Your task to perform on an android device: check android version Image 0: 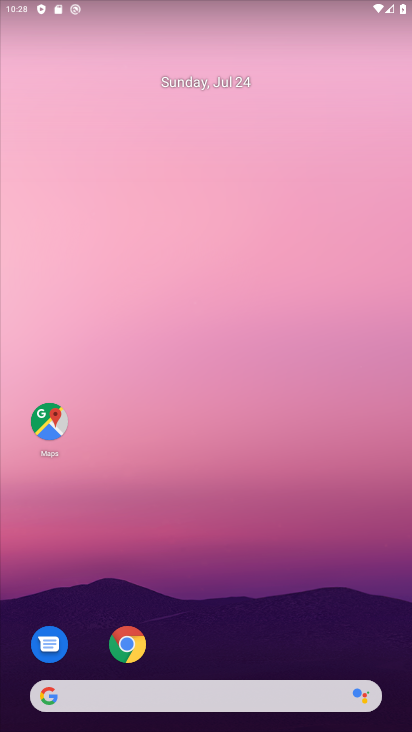
Step 0: drag from (232, 658) to (247, 15)
Your task to perform on an android device: check android version Image 1: 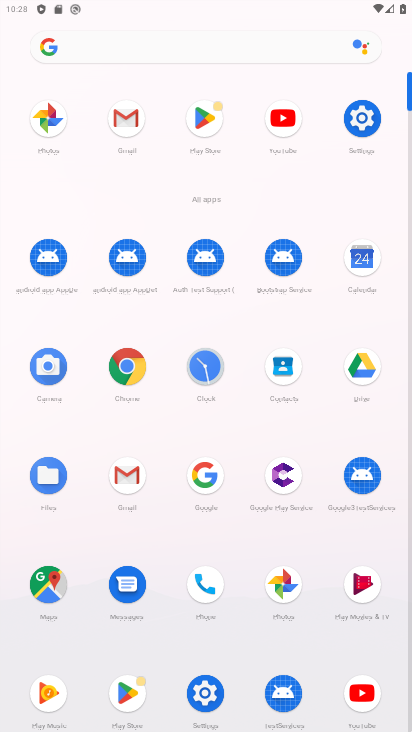
Step 1: click (355, 125)
Your task to perform on an android device: check android version Image 2: 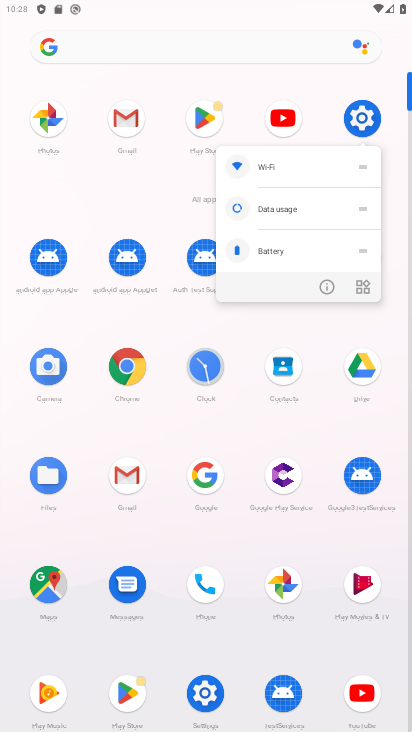
Step 2: click (363, 119)
Your task to perform on an android device: check android version Image 3: 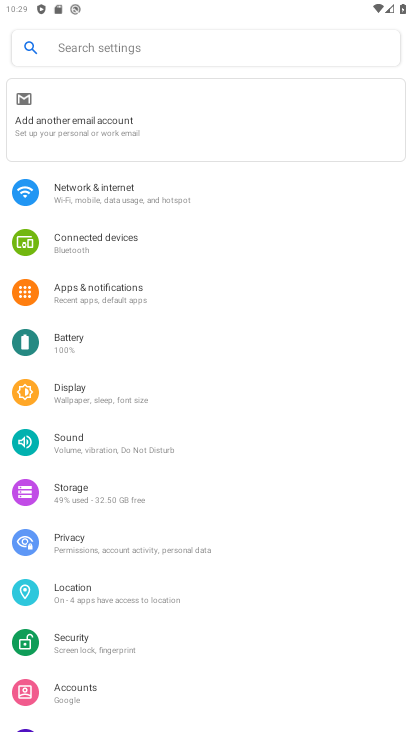
Step 3: drag from (219, 661) to (208, 170)
Your task to perform on an android device: check android version Image 4: 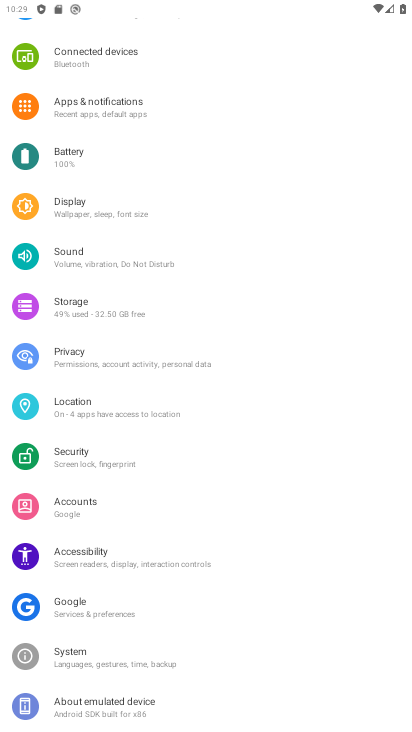
Step 4: click (83, 704)
Your task to perform on an android device: check android version Image 5: 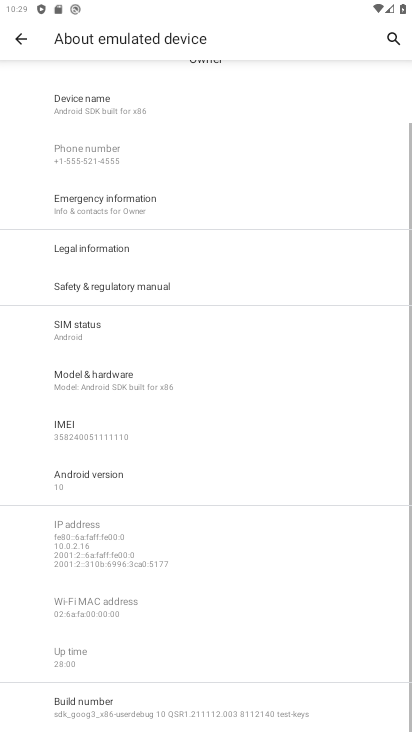
Step 5: click (95, 480)
Your task to perform on an android device: check android version Image 6: 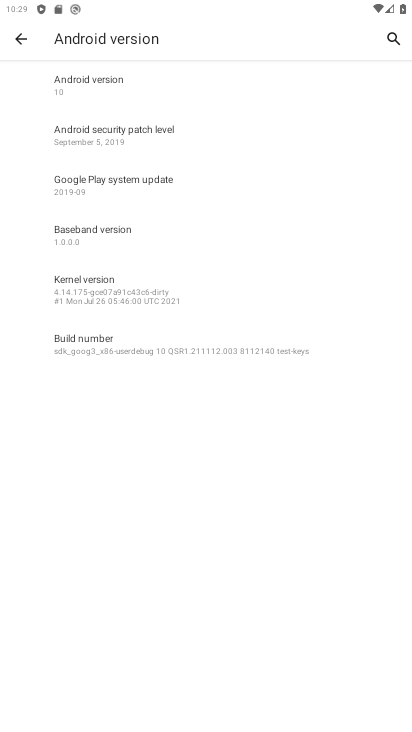
Step 6: task complete